Your task to perform on an android device: Go to Reddit.com Image 0: 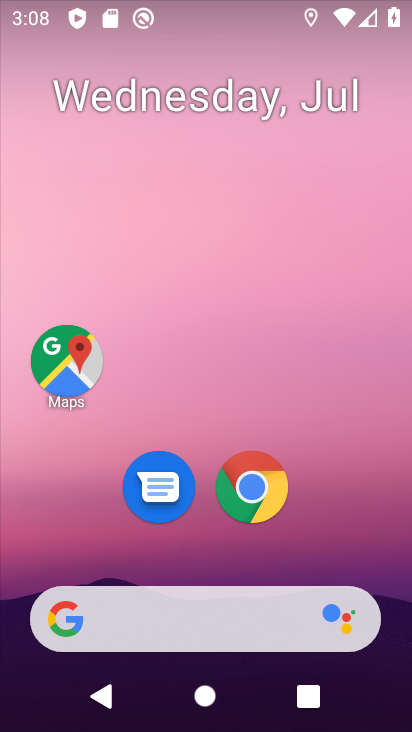
Step 0: click (250, 488)
Your task to perform on an android device: Go to Reddit.com Image 1: 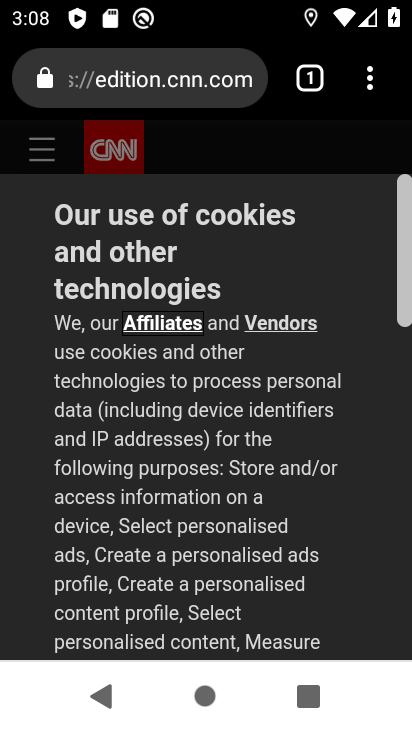
Step 1: click (308, 79)
Your task to perform on an android device: Go to Reddit.com Image 2: 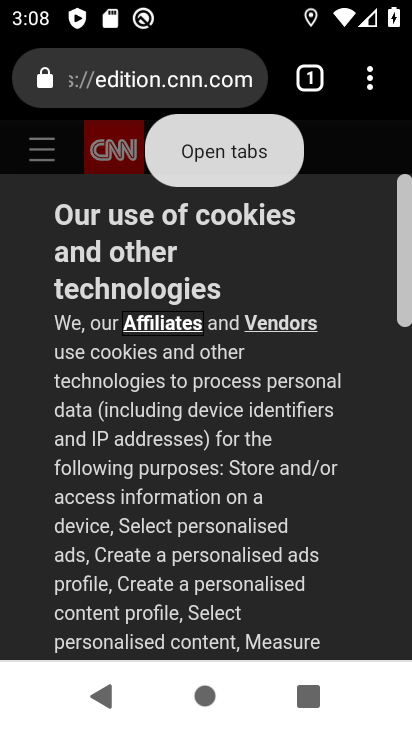
Step 2: click (324, 74)
Your task to perform on an android device: Go to Reddit.com Image 3: 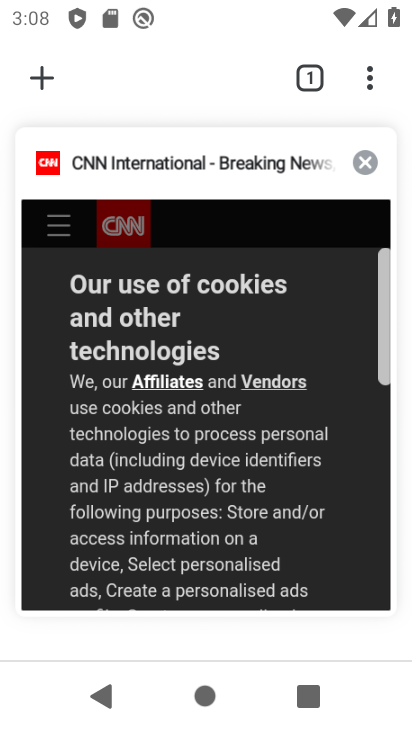
Step 3: click (48, 73)
Your task to perform on an android device: Go to Reddit.com Image 4: 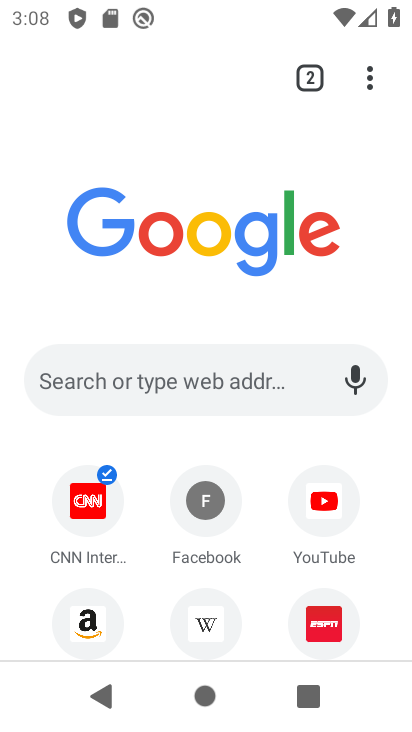
Step 4: click (83, 362)
Your task to perform on an android device: Go to Reddit.com Image 5: 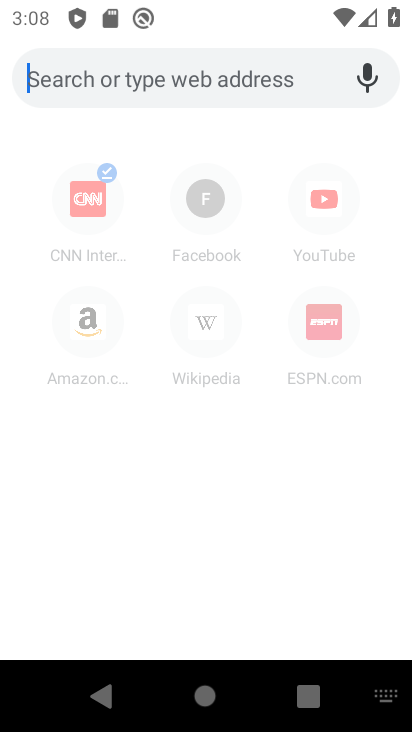
Step 5: type "reddit.com"
Your task to perform on an android device: Go to Reddit.com Image 6: 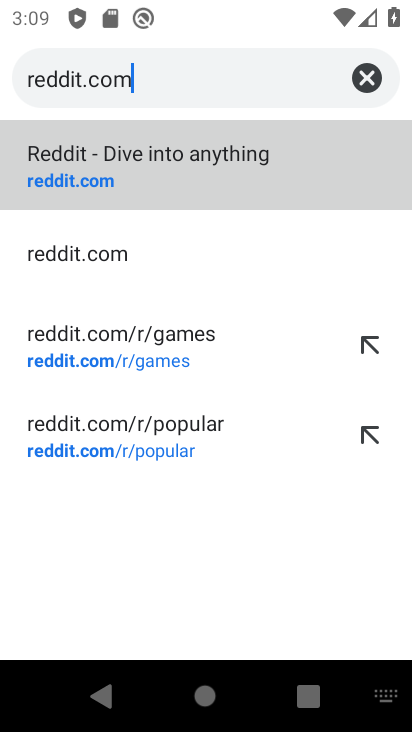
Step 6: click (205, 174)
Your task to perform on an android device: Go to Reddit.com Image 7: 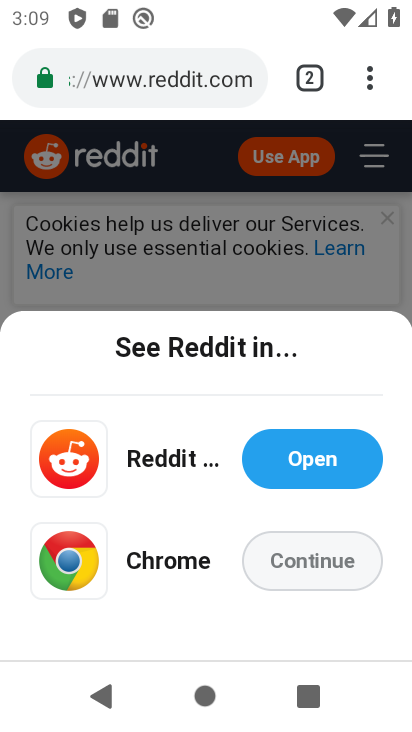
Step 7: task complete